Your task to perform on an android device: Go to sound settings Image 0: 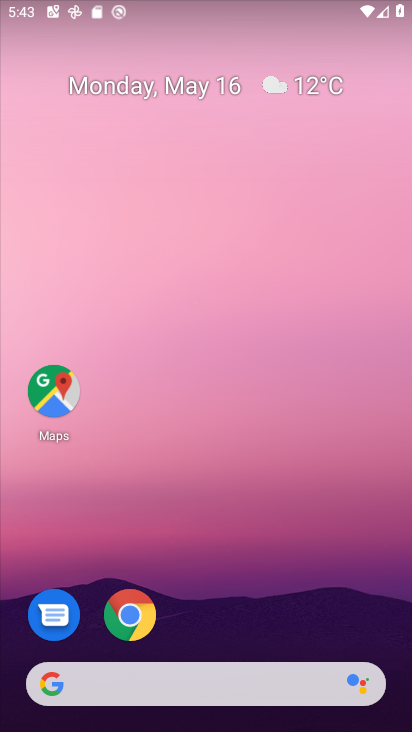
Step 0: click (260, 220)
Your task to perform on an android device: Go to sound settings Image 1: 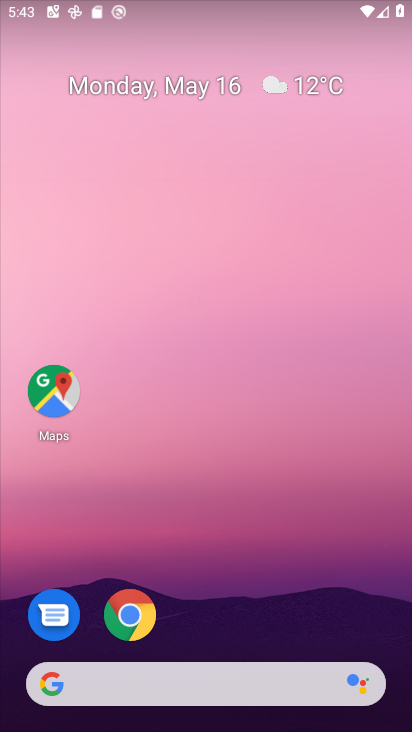
Step 1: drag from (214, 626) to (201, 108)
Your task to perform on an android device: Go to sound settings Image 2: 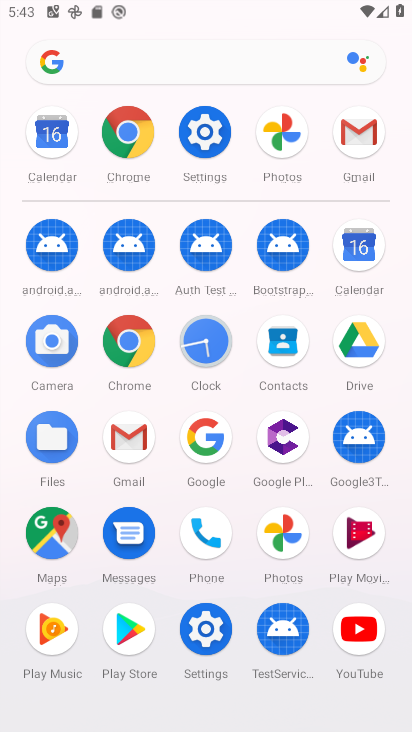
Step 2: click (202, 136)
Your task to perform on an android device: Go to sound settings Image 3: 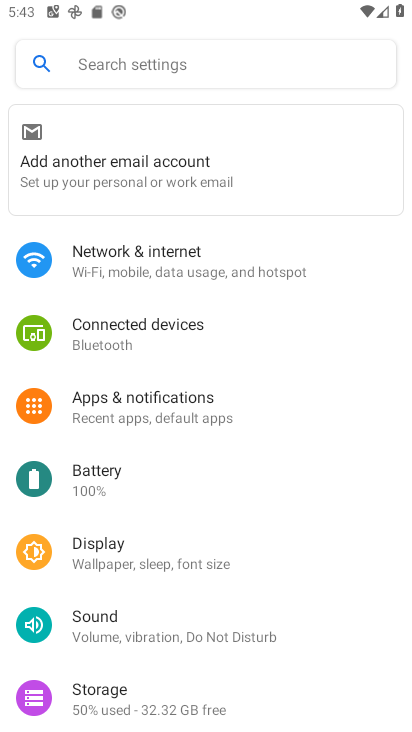
Step 3: click (87, 622)
Your task to perform on an android device: Go to sound settings Image 4: 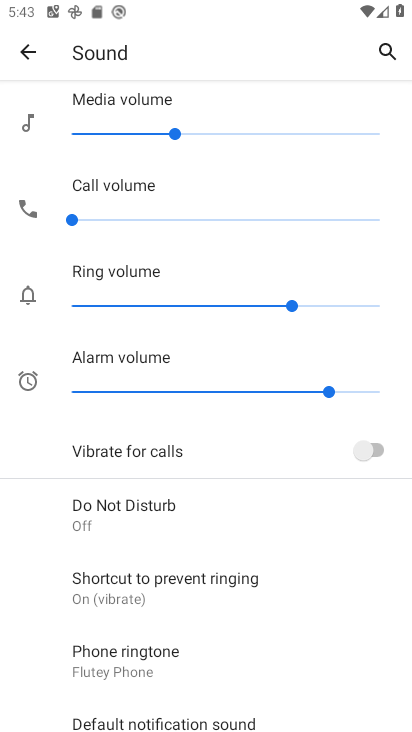
Step 4: task complete